Your task to perform on an android device: Check the news Image 0: 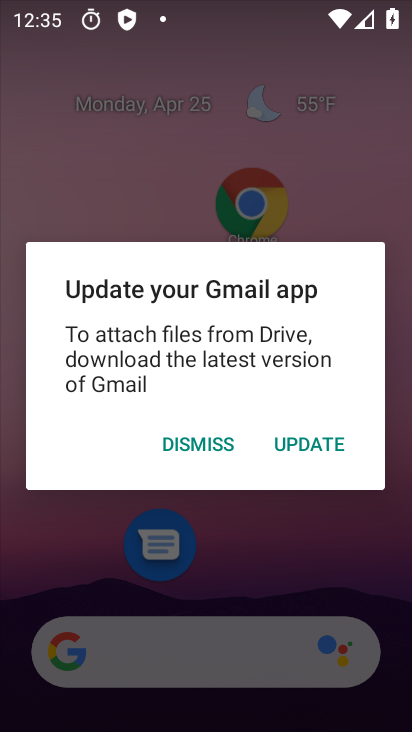
Step 0: press home button
Your task to perform on an android device: Check the news Image 1: 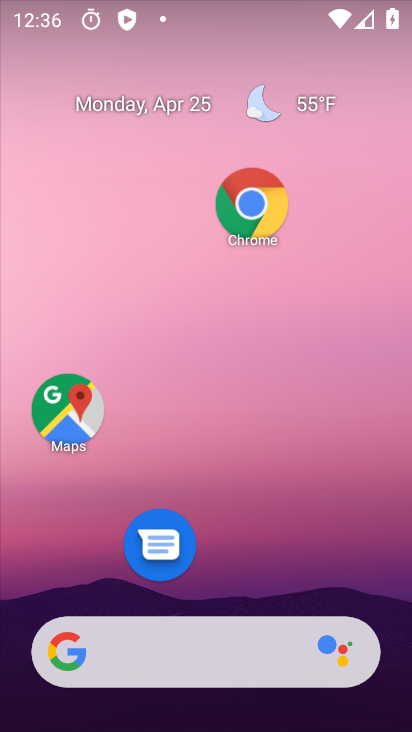
Step 1: drag from (333, 661) to (314, 291)
Your task to perform on an android device: Check the news Image 2: 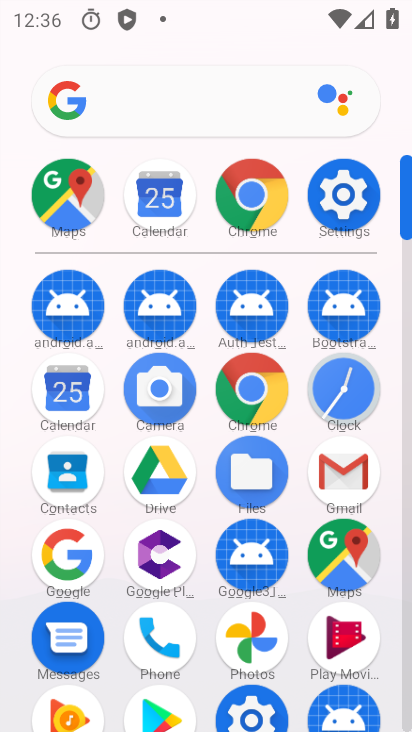
Step 2: click (212, 114)
Your task to perform on an android device: Check the news Image 3: 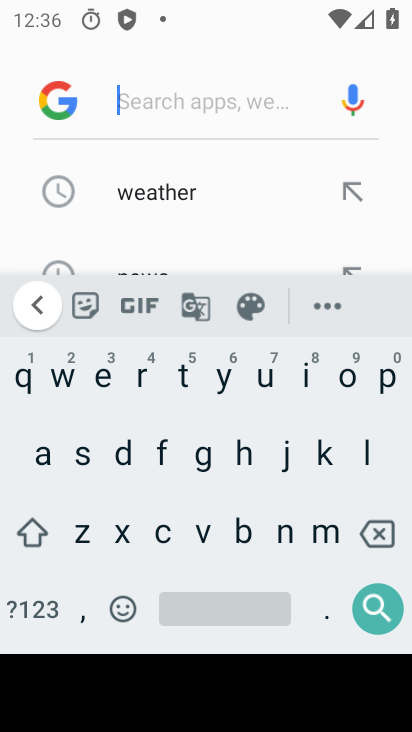
Step 3: click (280, 528)
Your task to perform on an android device: Check the news Image 4: 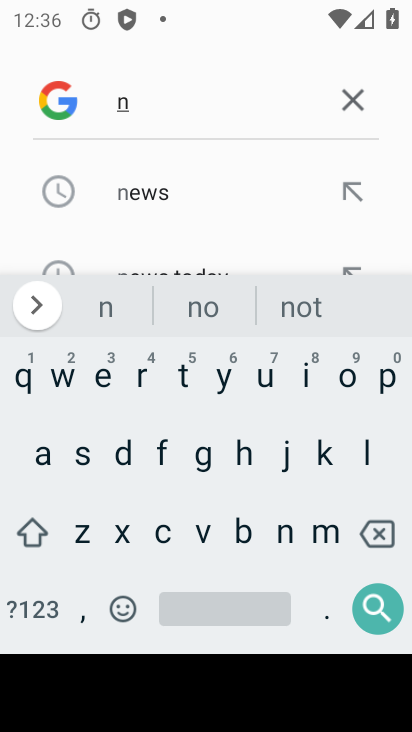
Step 4: click (156, 208)
Your task to perform on an android device: Check the news Image 5: 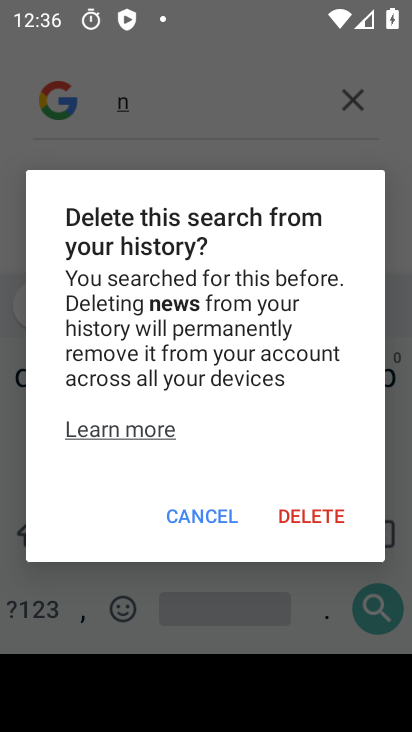
Step 5: click (198, 513)
Your task to perform on an android device: Check the news Image 6: 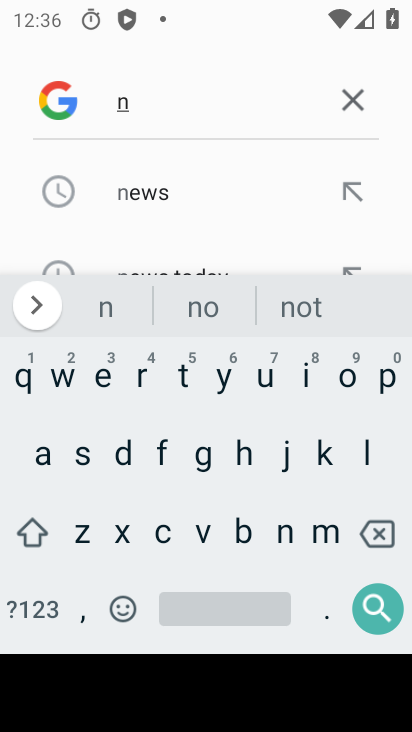
Step 6: click (145, 198)
Your task to perform on an android device: Check the news Image 7: 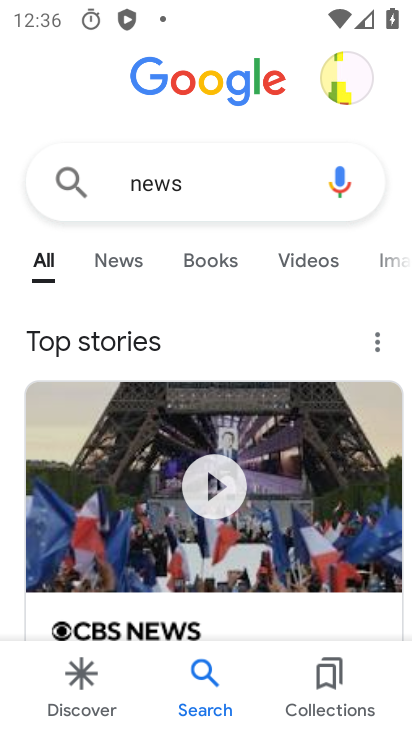
Step 7: task complete